Your task to perform on an android device: Open notification settings Image 0: 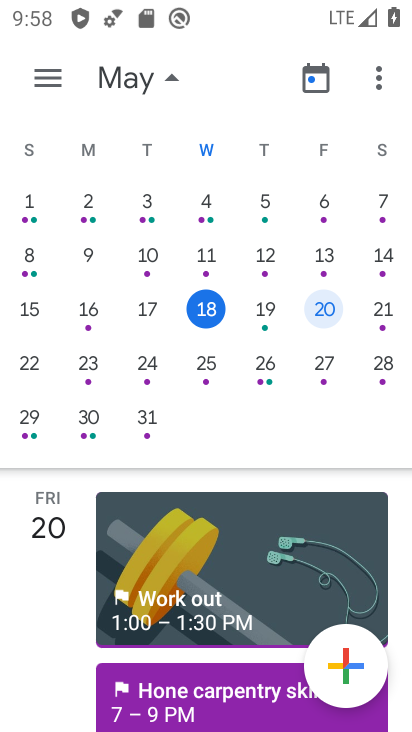
Step 0: press home button
Your task to perform on an android device: Open notification settings Image 1: 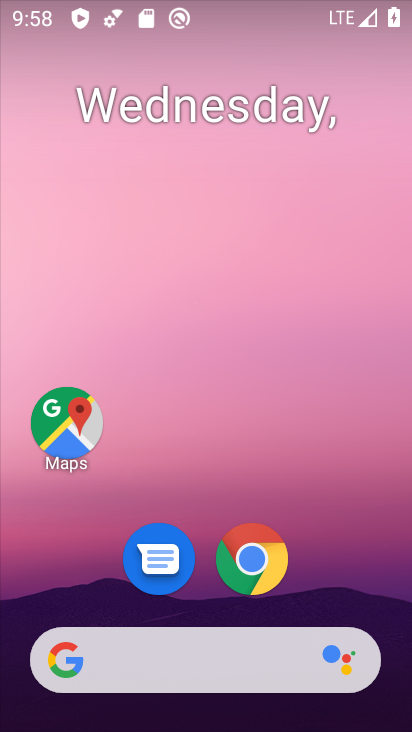
Step 1: drag from (382, 564) to (385, 6)
Your task to perform on an android device: Open notification settings Image 2: 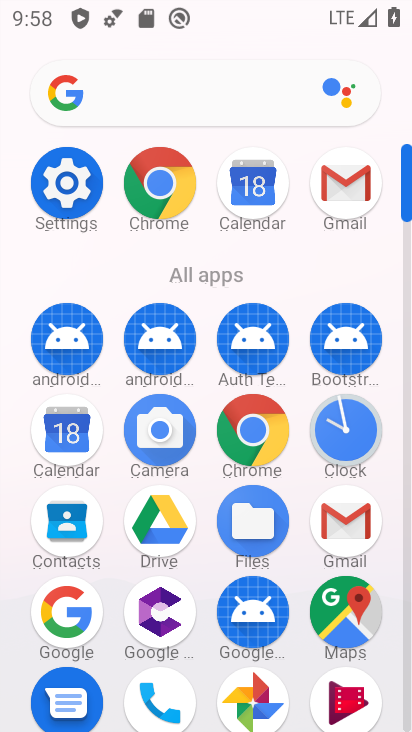
Step 2: click (49, 191)
Your task to perform on an android device: Open notification settings Image 3: 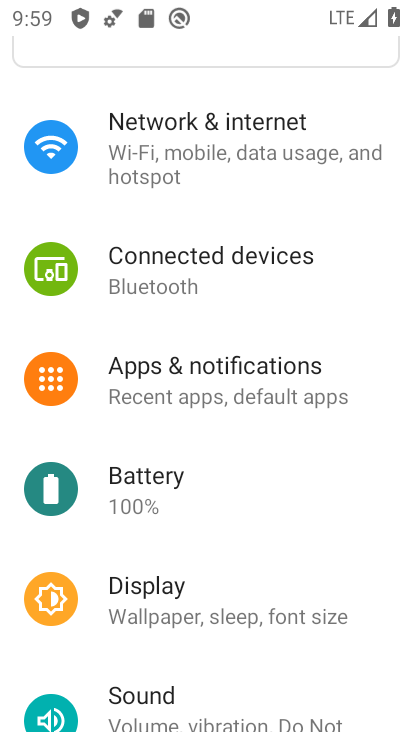
Step 3: click (217, 368)
Your task to perform on an android device: Open notification settings Image 4: 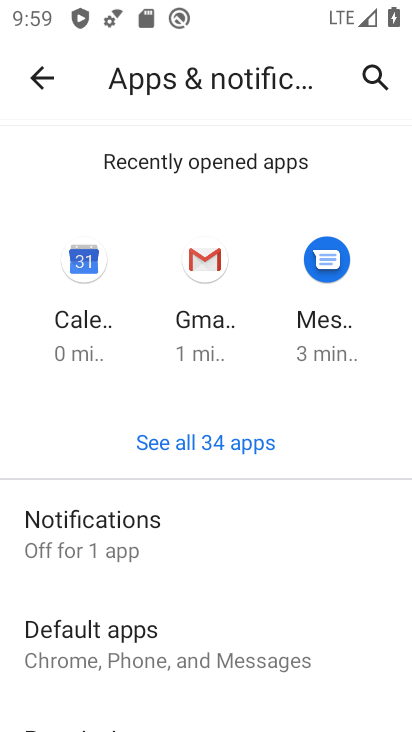
Step 4: click (97, 542)
Your task to perform on an android device: Open notification settings Image 5: 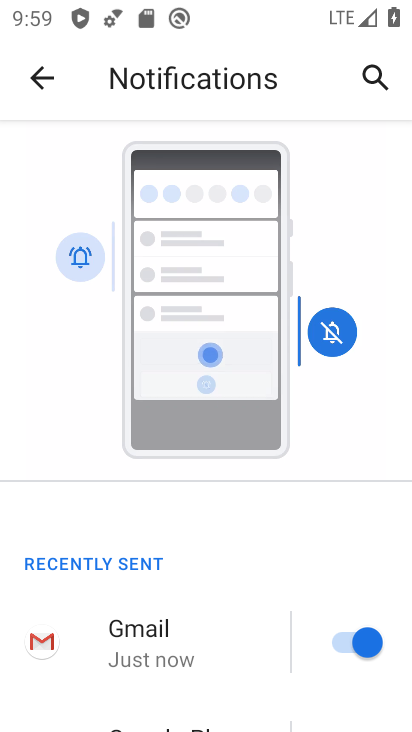
Step 5: task complete